Your task to perform on an android device: toggle sleep mode Image 0: 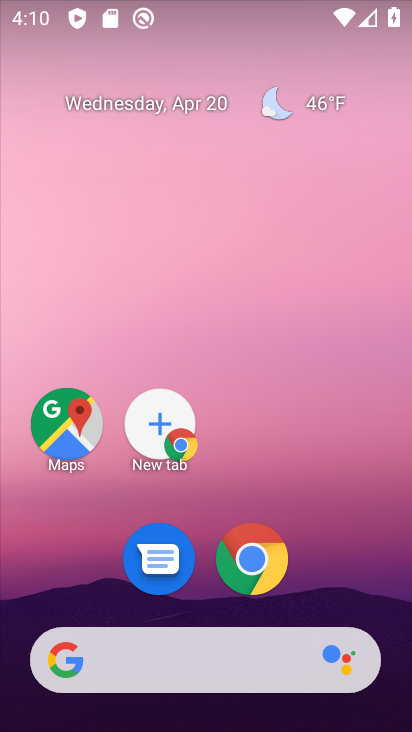
Step 0: drag from (337, 583) to (342, 192)
Your task to perform on an android device: toggle sleep mode Image 1: 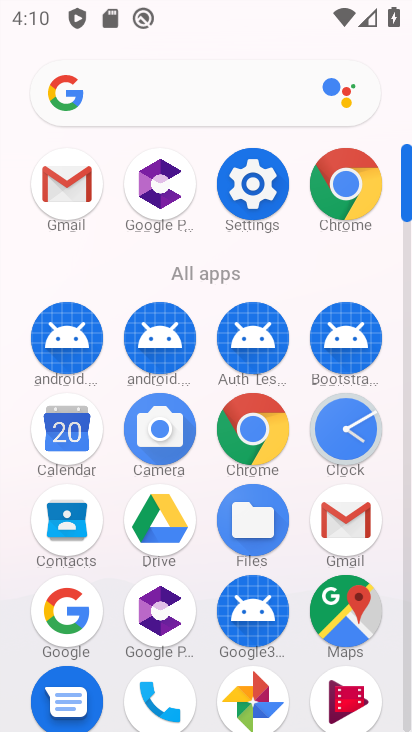
Step 1: click (246, 198)
Your task to perform on an android device: toggle sleep mode Image 2: 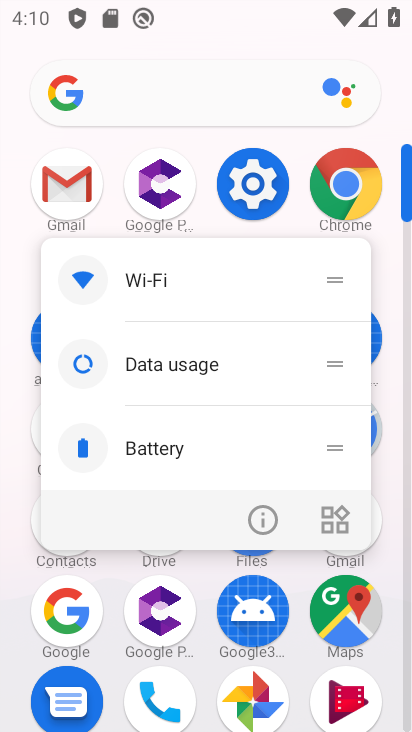
Step 2: click (245, 189)
Your task to perform on an android device: toggle sleep mode Image 3: 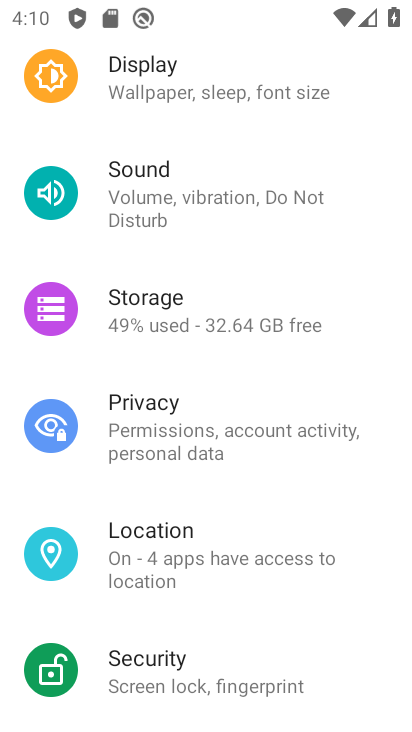
Step 3: click (220, 101)
Your task to perform on an android device: toggle sleep mode Image 4: 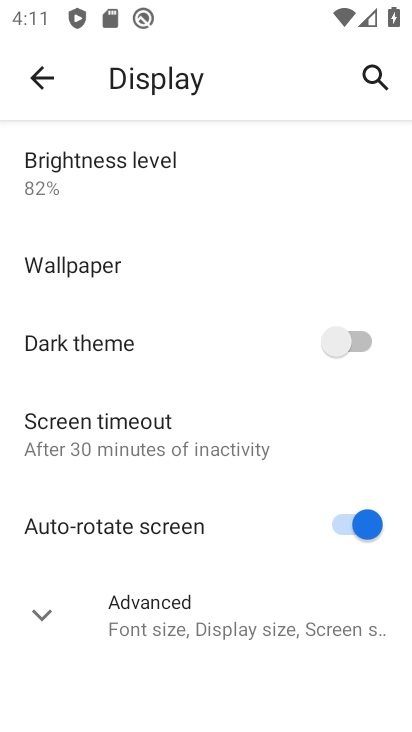
Step 4: click (146, 417)
Your task to perform on an android device: toggle sleep mode Image 5: 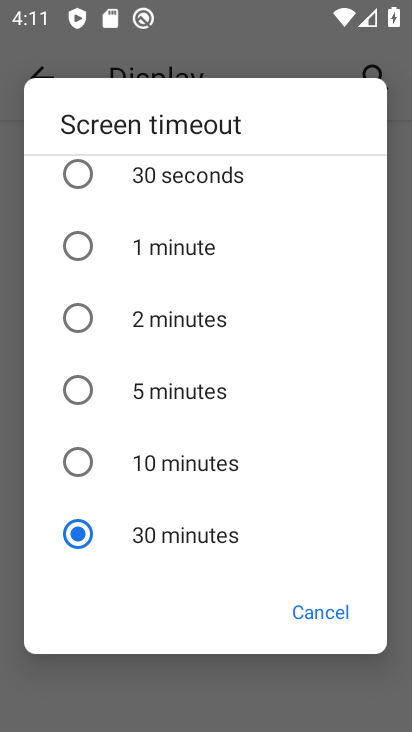
Step 5: click (171, 179)
Your task to perform on an android device: toggle sleep mode Image 6: 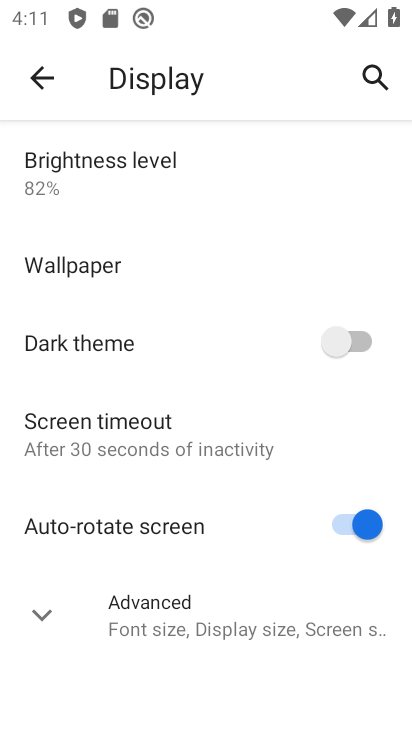
Step 6: task complete